Your task to perform on an android device: set default search engine in the chrome app Image 0: 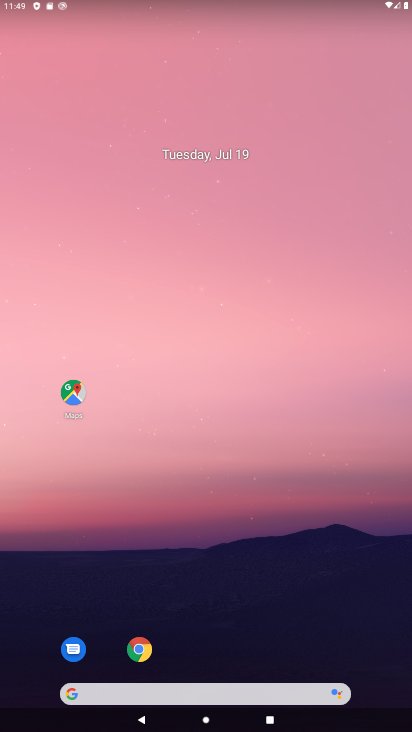
Step 0: click (138, 644)
Your task to perform on an android device: set default search engine in the chrome app Image 1: 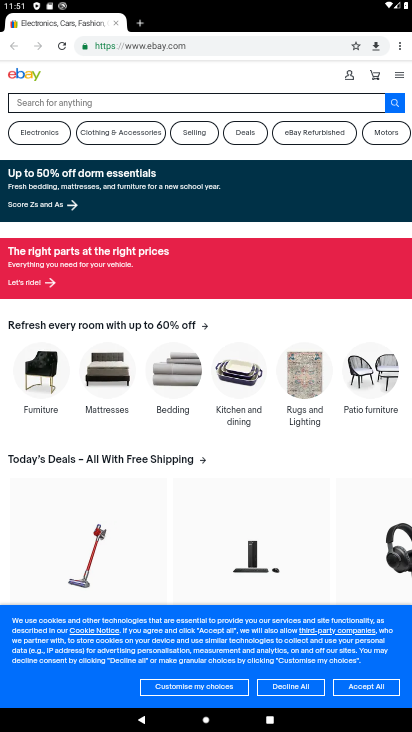
Step 1: click (401, 45)
Your task to perform on an android device: set default search engine in the chrome app Image 2: 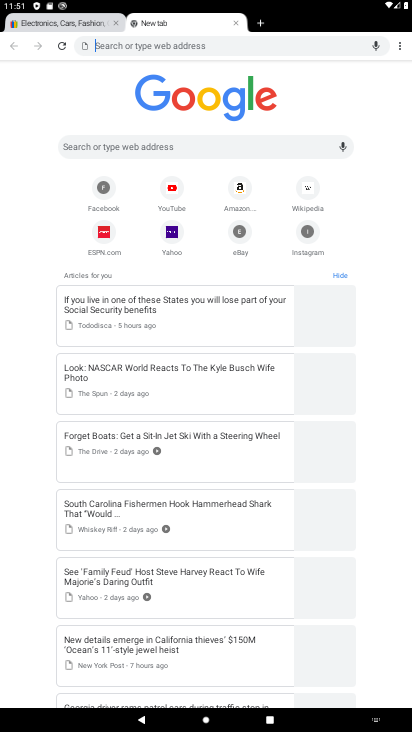
Step 2: click (401, 45)
Your task to perform on an android device: set default search engine in the chrome app Image 3: 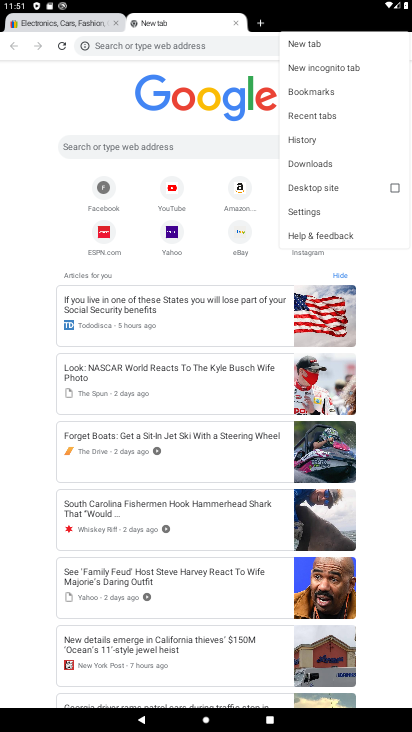
Step 3: click (323, 212)
Your task to perform on an android device: set default search engine in the chrome app Image 4: 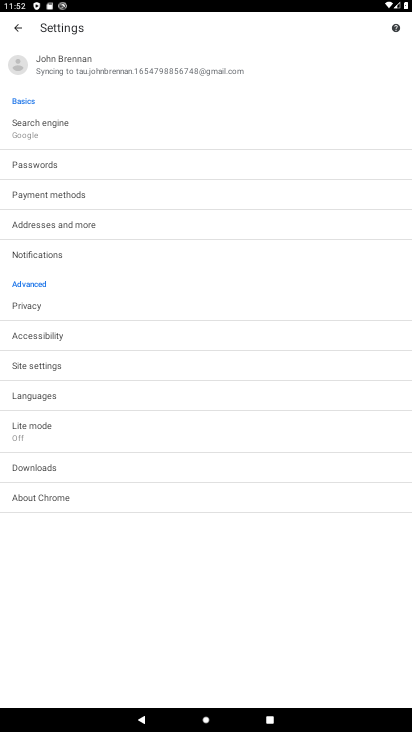
Step 4: click (118, 127)
Your task to perform on an android device: set default search engine in the chrome app Image 5: 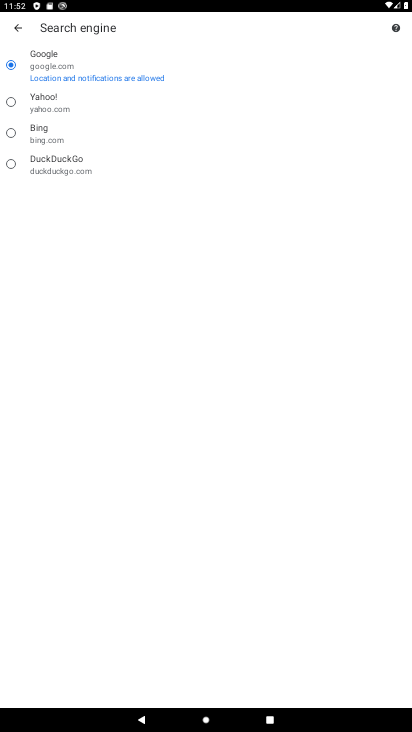
Step 5: task complete